Your task to perform on an android device: Open privacy settings Image 0: 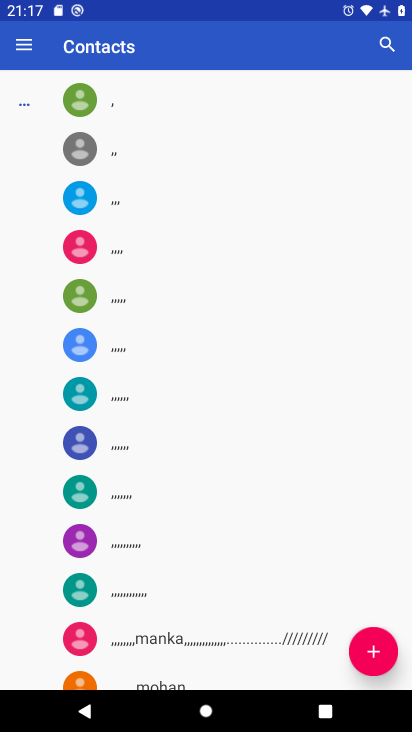
Step 0: press home button
Your task to perform on an android device: Open privacy settings Image 1: 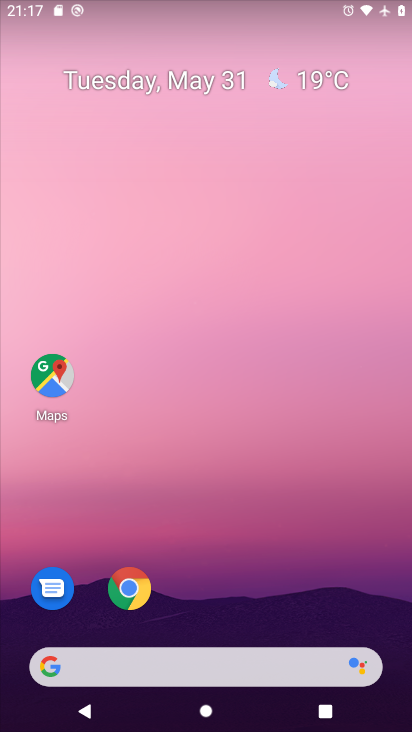
Step 1: drag from (168, 661) to (277, 98)
Your task to perform on an android device: Open privacy settings Image 2: 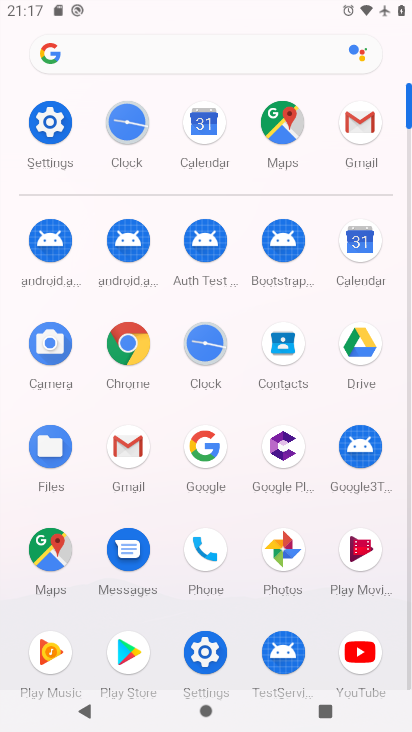
Step 2: click (35, 120)
Your task to perform on an android device: Open privacy settings Image 3: 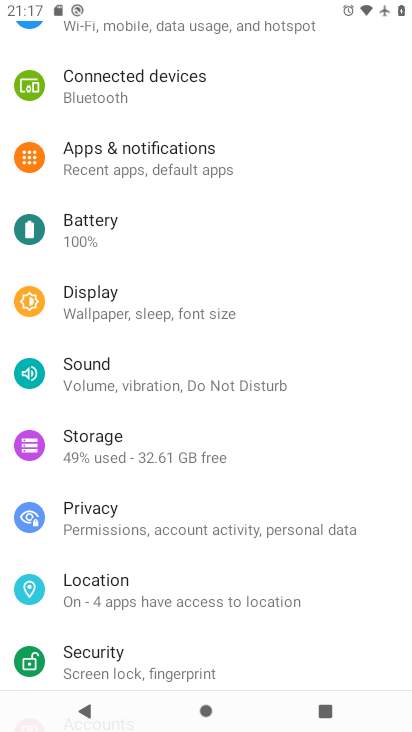
Step 3: click (120, 511)
Your task to perform on an android device: Open privacy settings Image 4: 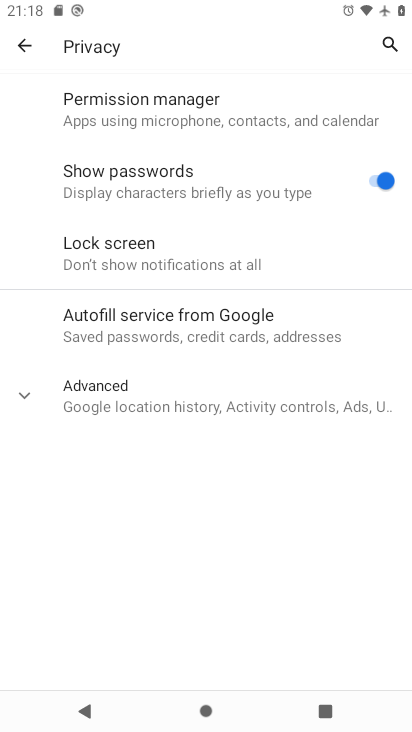
Step 4: task complete